Your task to perform on an android device: Search for the best selling books on Target. Image 0: 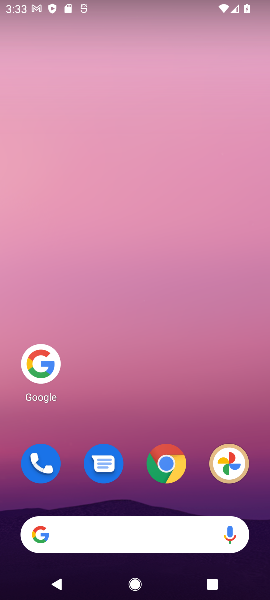
Step 0: click (36, 369)
Your task to perform on an android device: Search for the best selling books on Target. Image 1: 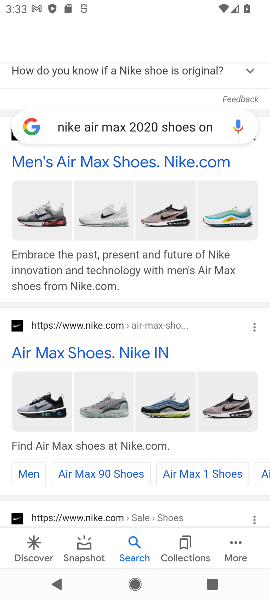
Step 1: click (171, 127)
Your task to perform on an android device: Search for the best selling books on Target. Image 2: 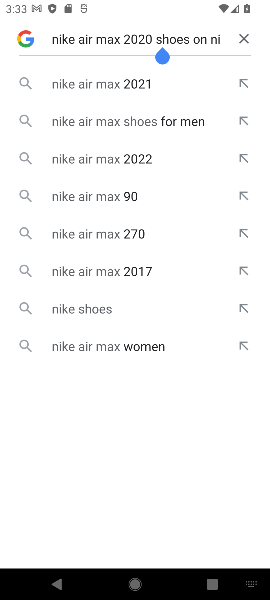
Step 2: click (238, 30)
Your task to perform on an android device: Search for the best selling books on Target. Image 3: 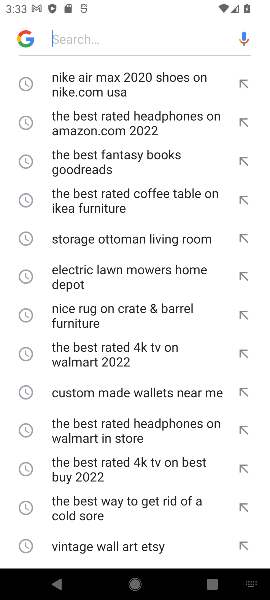
Step 3: click (97, 32)
Your task to perform on an android device: Search for the best selling books on Target. Image 4: 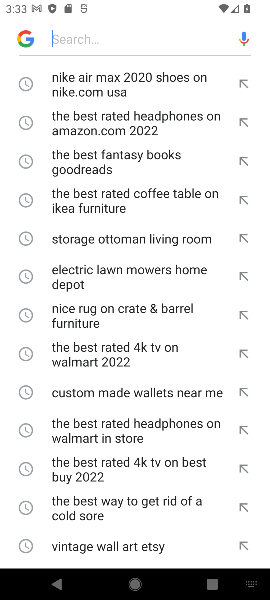
Step 4: type "the best selling books on Target "
Your task to perform on an android device: Search for the best selling books on Target. Image 5: 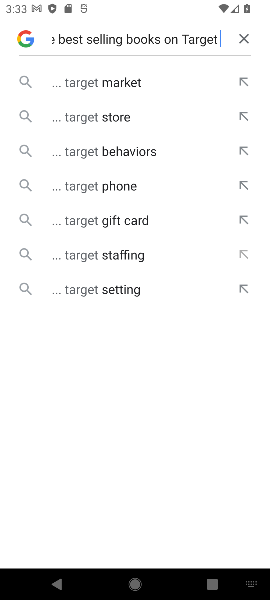
Step 5: click (113, 81)
Your task to perform on an android device: Search for the best selling books on Target. Image 6: 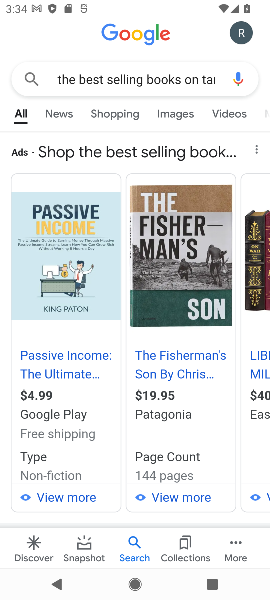
Step 6: task complete